Your task to perform on an android device: turn on javascript in the chrome app Image 0: 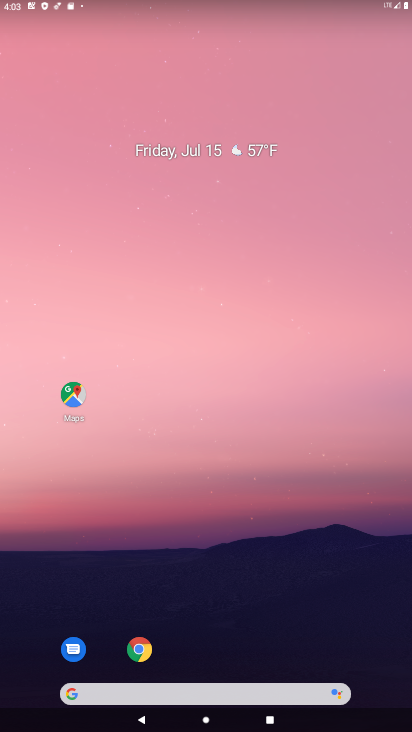
Step 0: click (141, 651)
Your task to perform on an android device: turn on javascript in the chrome app Image 1: 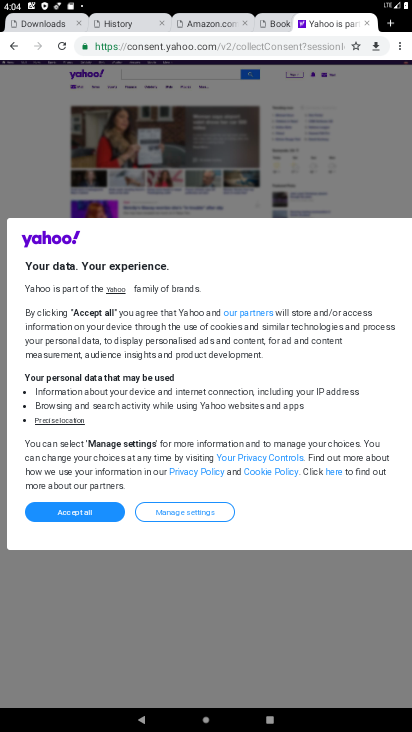
Step 1: click (396, 42)
Your task to perform on an android device: turn on javascript in the chrome app Image 2: 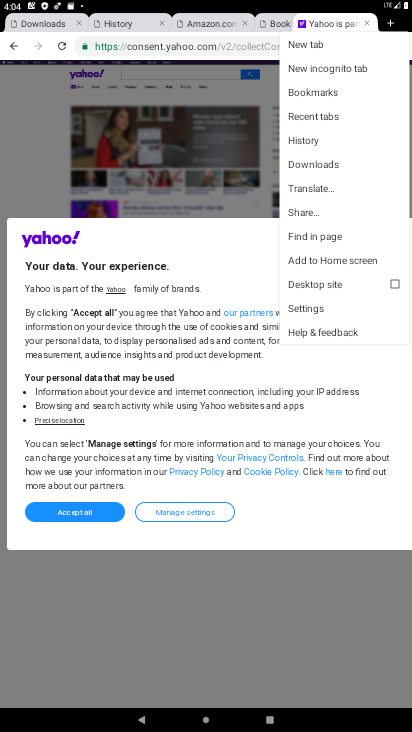
Step 2: click (311, 306)
Your task to perform on an android device: turn on javascript in the chrome app Image 3: 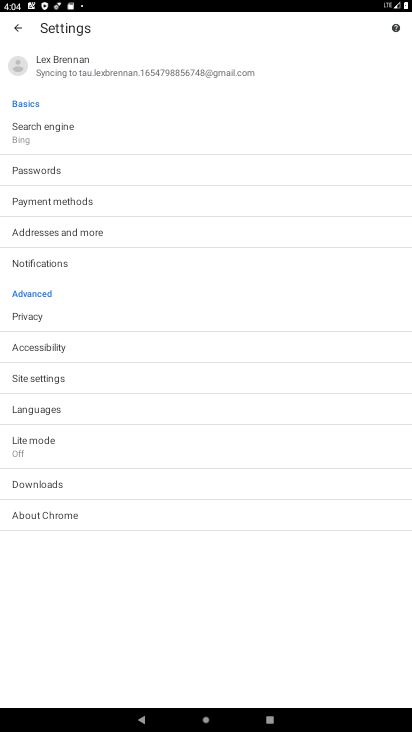
Step 3: click (42, 374)
Your task to perform on an android device: turn on javascript in the chrome app Image 4: 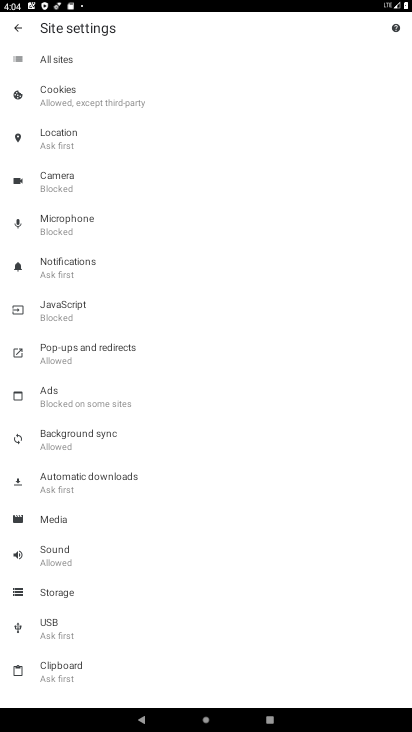
Step 4: click (55, 308)
Your task to perform on an android device: turn on javascript in the chrome app Image 5: 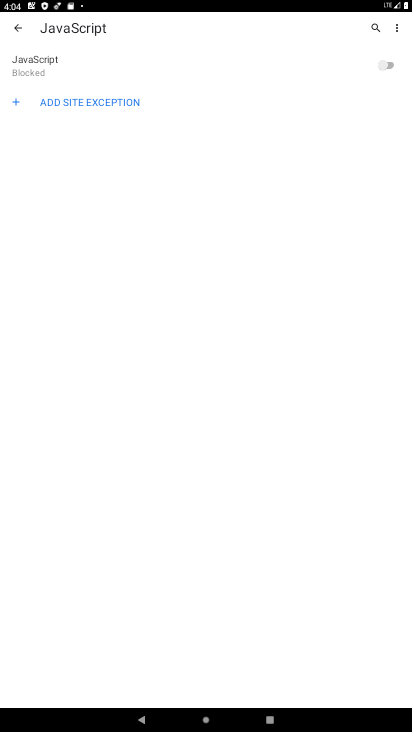
Step 5: click (385, 60)
Your task to perform on an android device: turn on javascript in the chrome app Image 6: 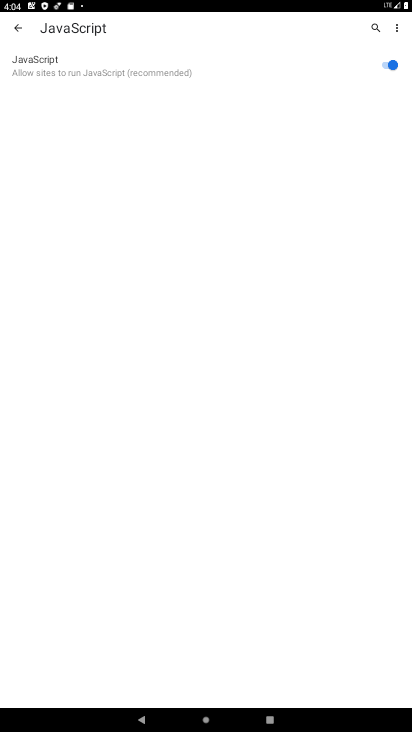
Step 6: task complete